Your task to perform on an android device: Open the map Image 0: 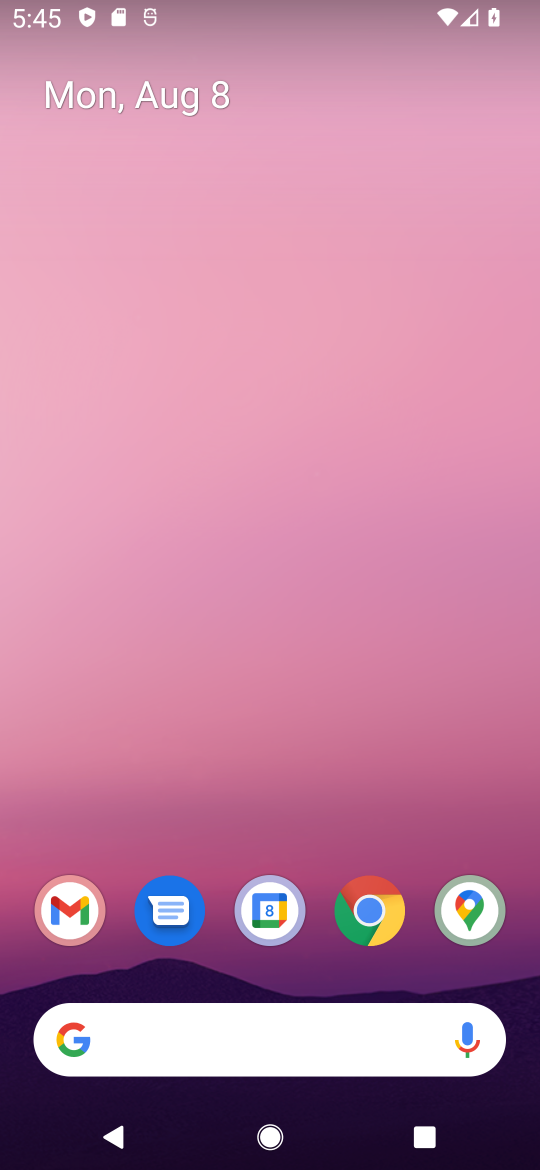
Step 0: click (466, 909)
Your task to perform on an android device: Open the map Image 1: 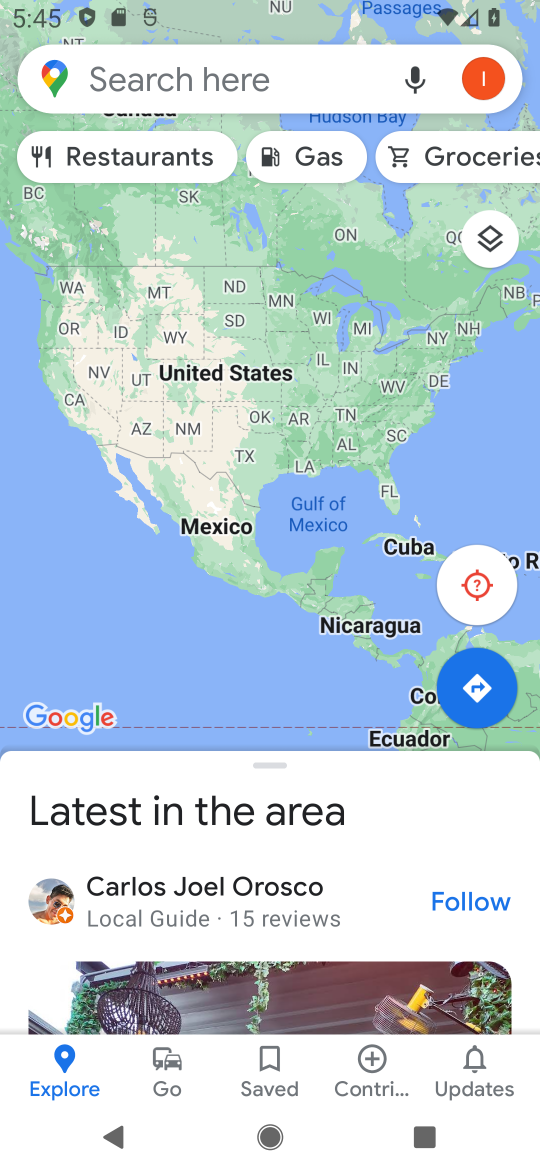
Step 1: task complete